Your task to perform on an android device: Open Amazon Image 0: 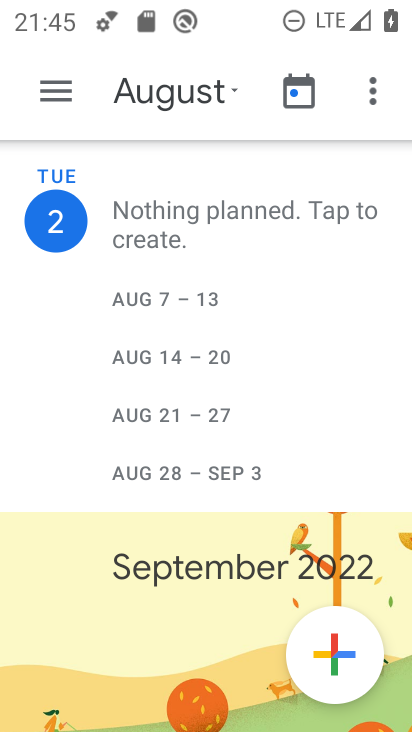
Step 0: press home button
Your task to perform on an android device: Open Amazon Image 1: 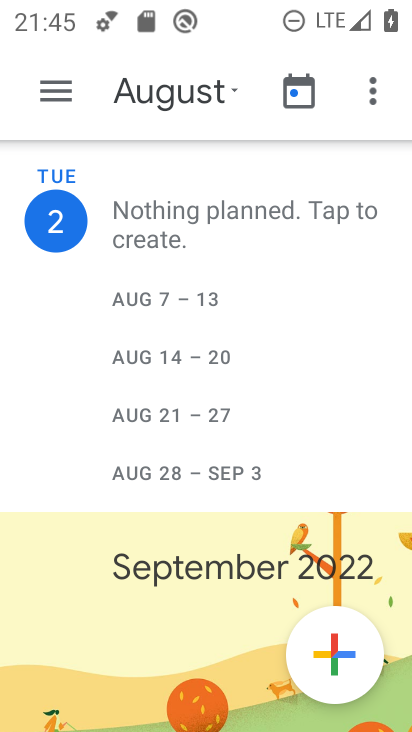
Step 1: press home button
Your task to perform on an android device: Open Amazon Image 2: 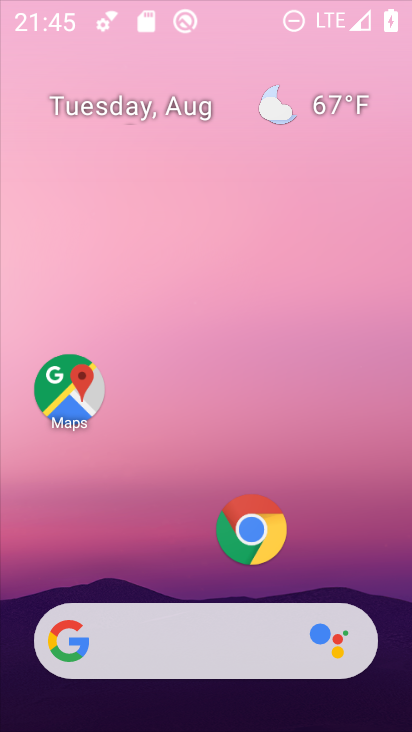
Step 2: drag from (170, 571) to (227, 163)
Your task to perform on an android device: Open Amazon Image 3: 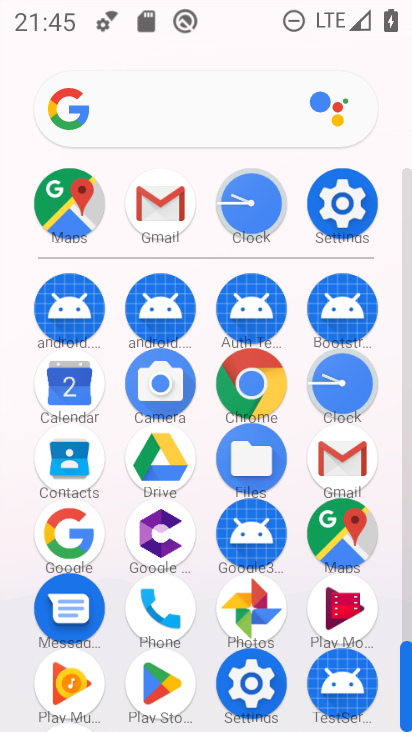
Step 3: click (258, 370)
Your task to perform on an android device: Open Amazon Image 4: 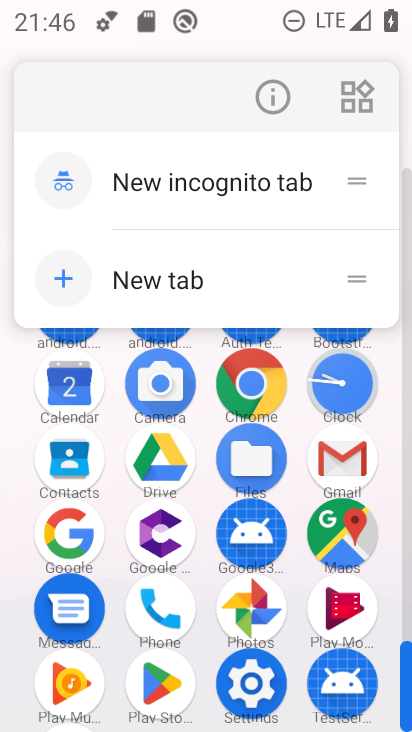
Step 4: click (272, 95)
Your task to perform on an android device: Open Amazon Image 5: 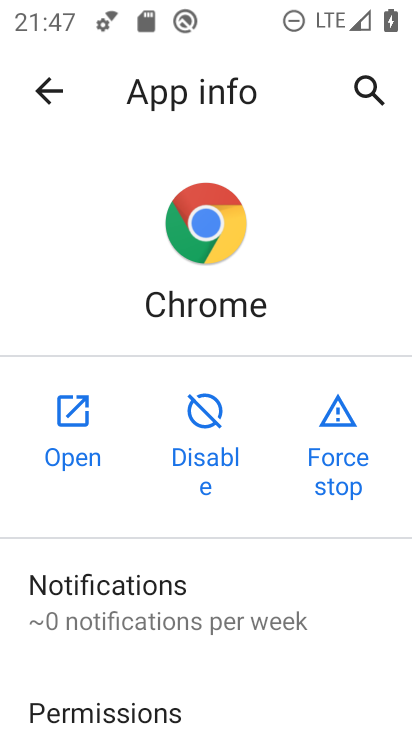
Step 5: click (68, 440)
Your task to perform on an android device: Open Amazon Image 6: 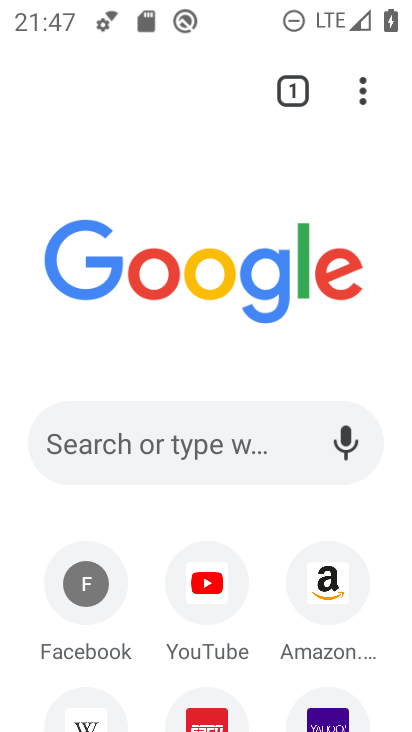
Step 6: click (320, 561)
Your task to perform on an android device: Open Amazon Image 7: 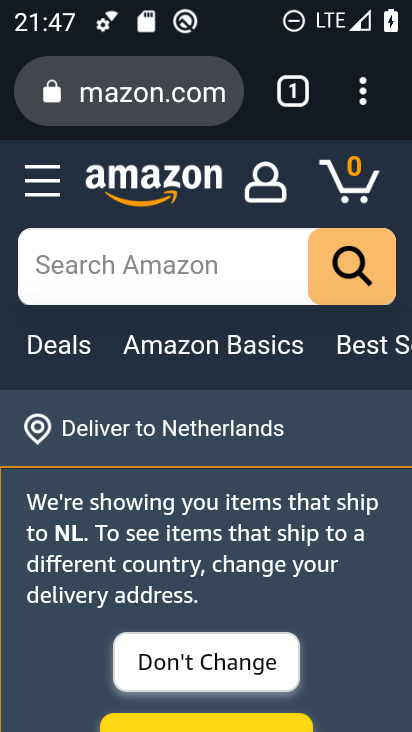
Step 7: task complete